Your task to perform on an android device: Open CNN.com Image 0: 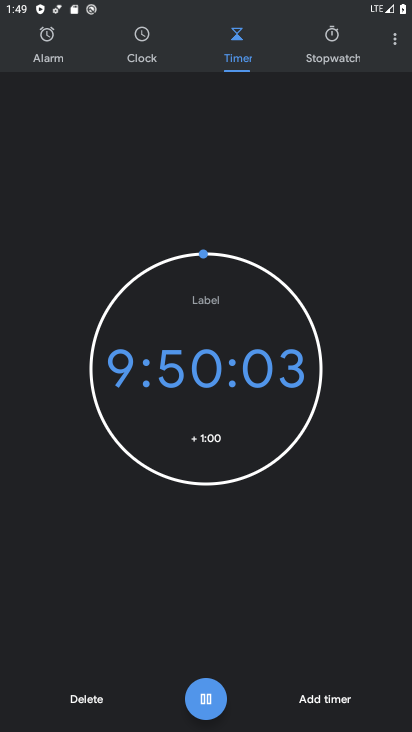
Step 0: press home button
Your task to perform on an android device: Open CNN.com Image 1: 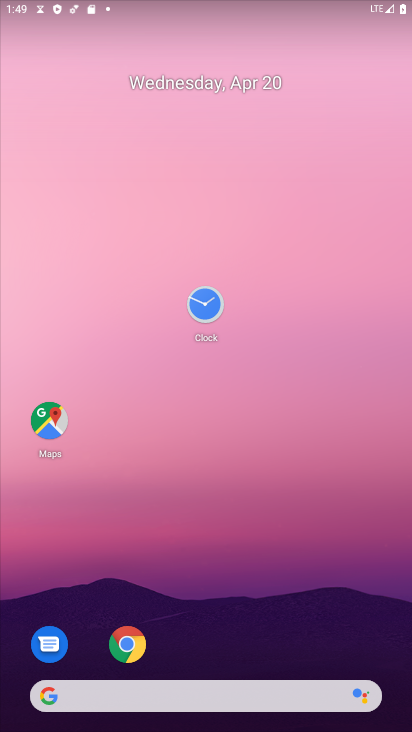
Step 1: drag from (248, 661) to (286, 143)
Your task to perform on an android device: Open CNN.com Image 2: 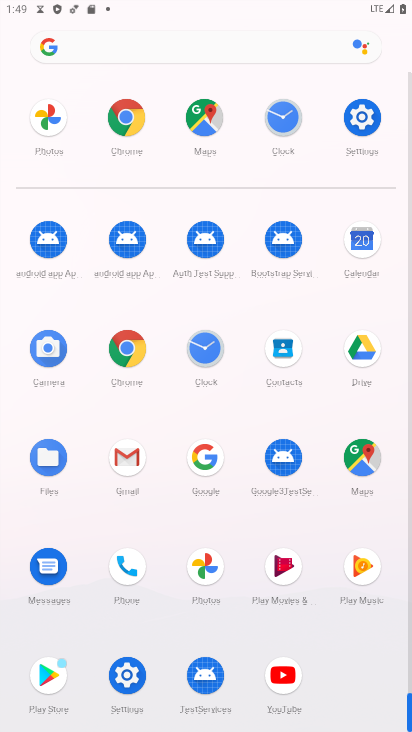
Step 2: click (127, 353)
Your task to perform on an android device: Open CNN.com Image 3: 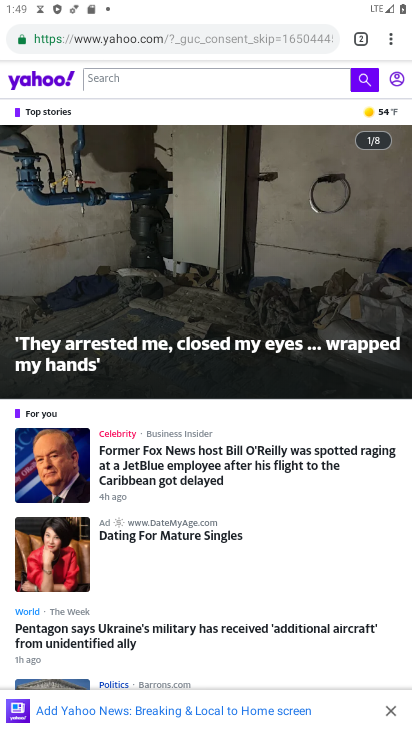
Step 3: click (226, 36)
Your task to perform on an android device: Open CNN.com Image 4: 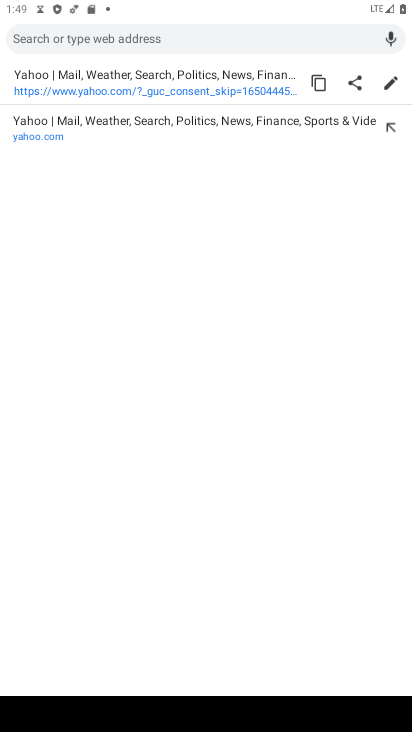
Step 4: type "cnn.com"
Your task to perform on an android device: Open CNN.com Image 5: 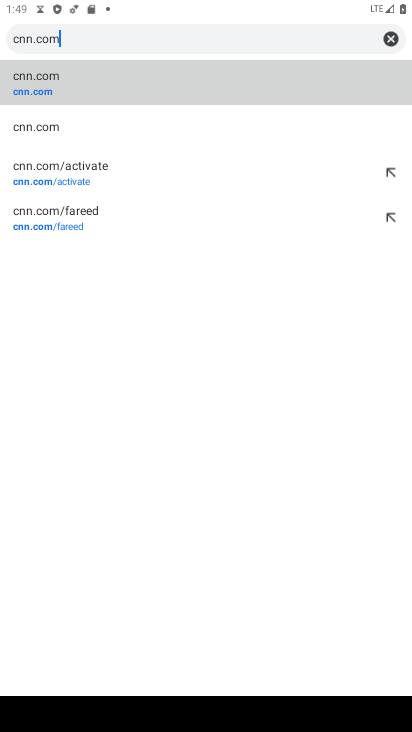
Step 5: click (157, 82)
Your task to perform on an android device: Open CNN.com Image 6: 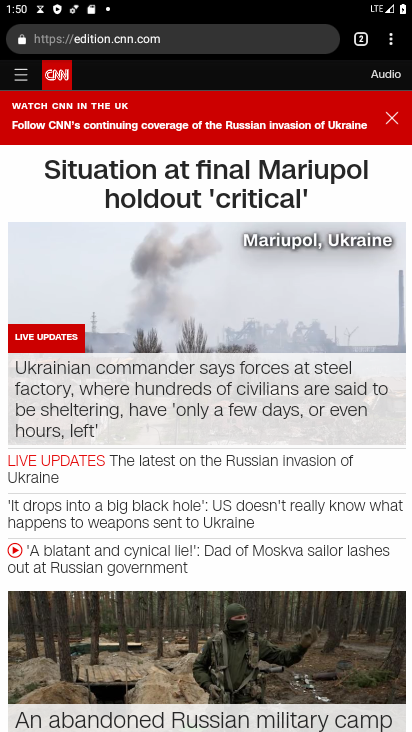
Step 6: task complete